Your task to perform on an android device: Do I have any events today? Image 0: 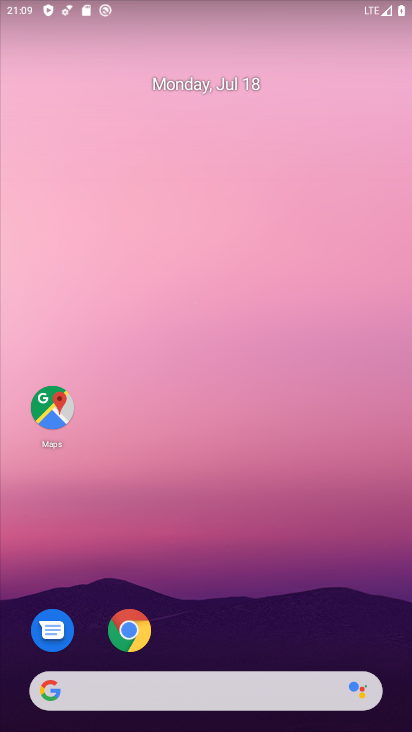
Step 0: drag from (181, 639) to (186, 138)
Your task to perform on an android device: Do I have any events today? Image 1: 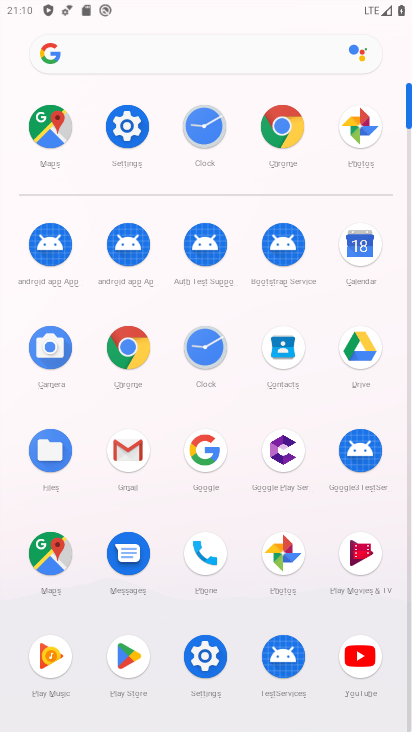
Step 1: click (370, 238)
Your task to perform on an android device: Do I have any events today? Image 2: 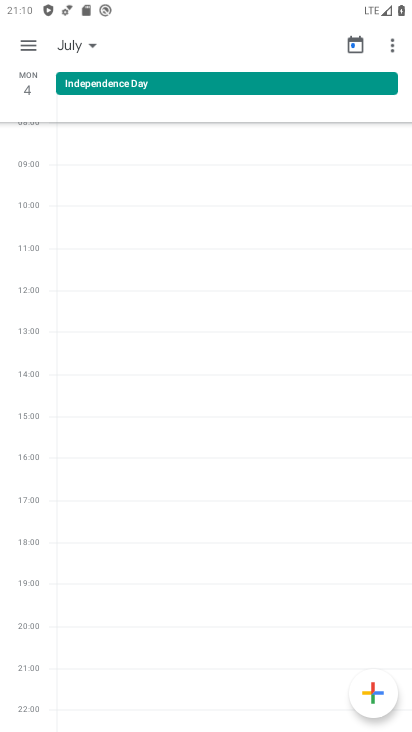
Step 2: click (30, 47)
Your task to perform on an android device: Do I have any events today? Image 3: 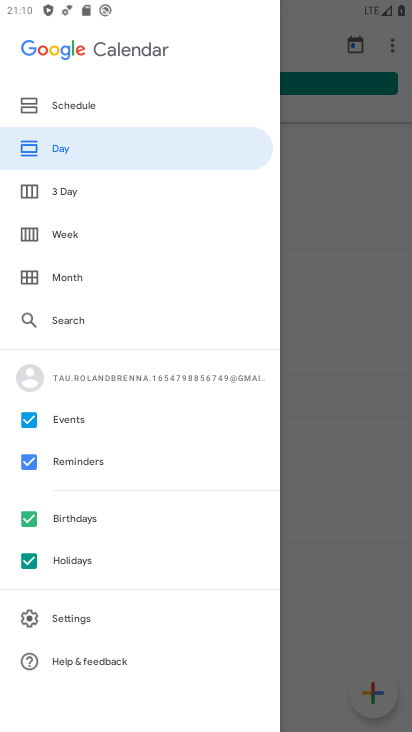
Step 3: click (65, 150)
Your task to perform on an android device: Do I have any events today? Image 4: 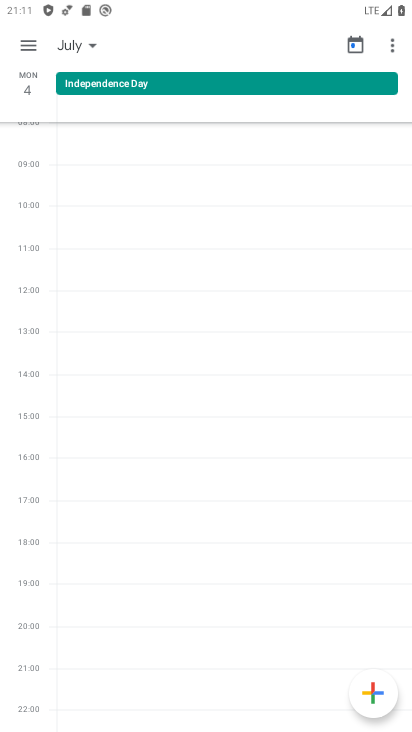
Step 4: click (40, 47)
Your task to perform on an android device: Do I have any events today? Image 5: 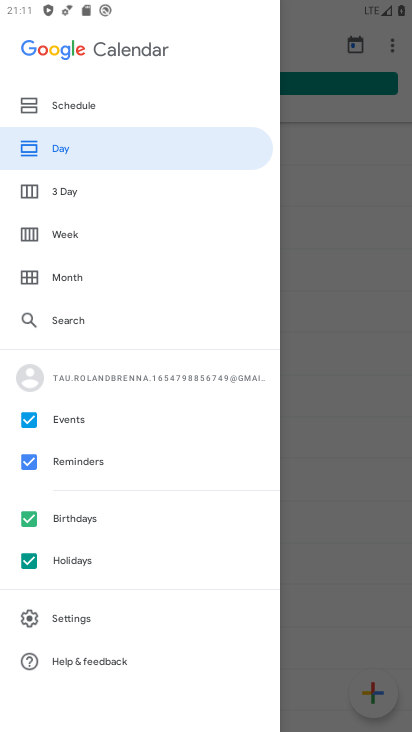
Step 5: click (88, 274)
Your task to perform on an android device: Do I have any events today? Image 6: 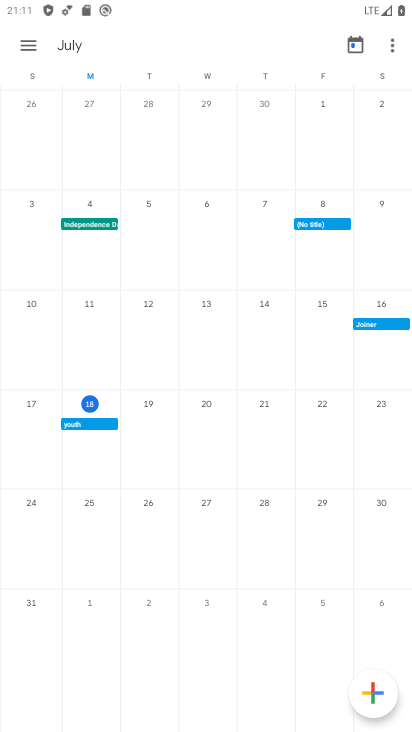
Step 6: click (155, 431)
Your task to perform on an android device: Do I have any events today? Image 7: 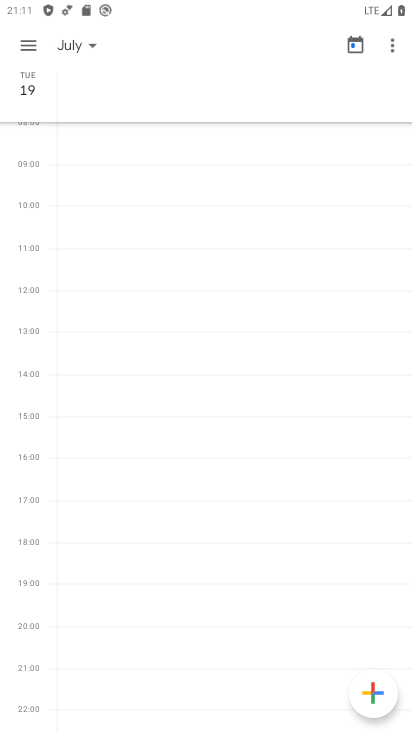
Step 7: task complete